Your task to perform on an android device: change the clock display to analog Image 0: 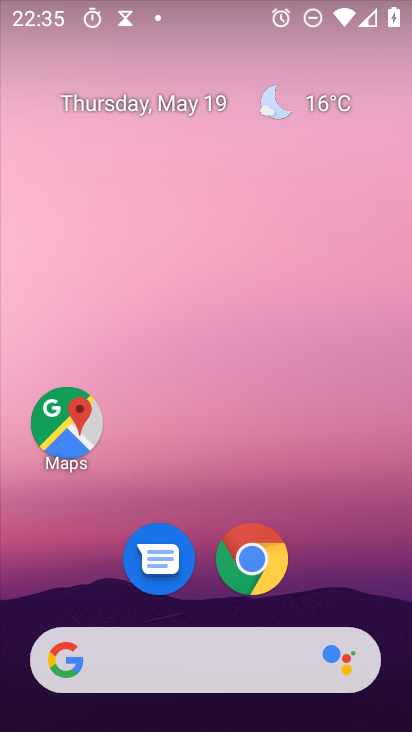
Step 0: drag from (206, 675) to (196, 222)
Your task to perform on an android device: change the clock display to analog Image 1: 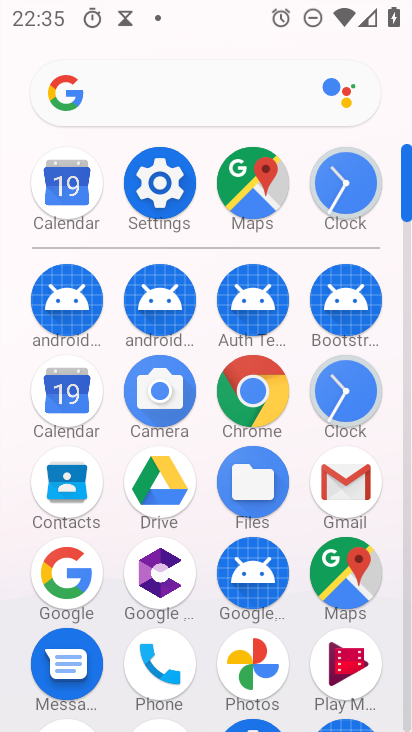
Step 1: click (341, 191)
Your task to perform on an android device: change the clock display to analog Image 2: 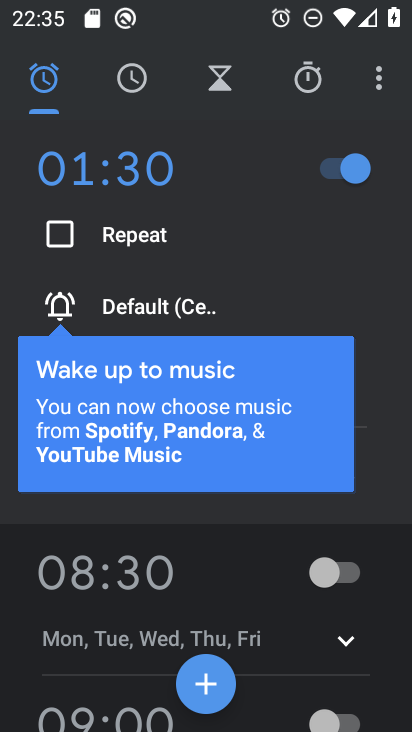
Step 2: click (379, 78)
Your task to perform on an android device: change the clock display to analog Image 3: 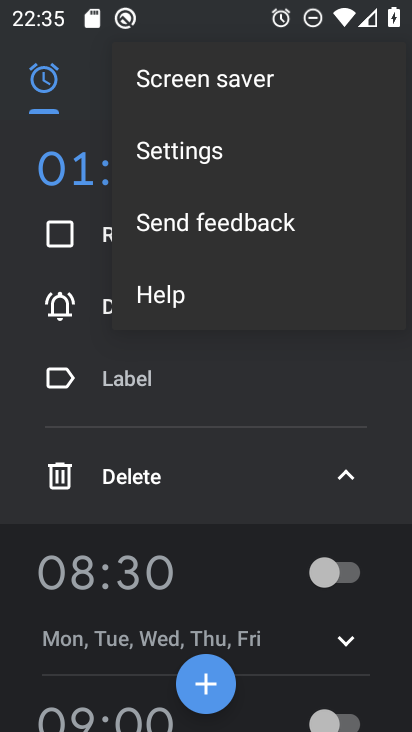
Step 3: click (173, 148)
Your task to perform on an android device: change the clock display to analog Image 4: 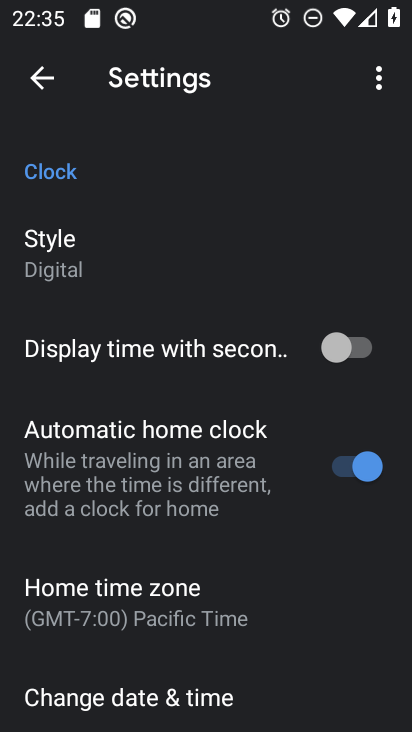
Step 4: click (53, 252)
Your task to perform on an android device: change the clock display to analog Image 5: 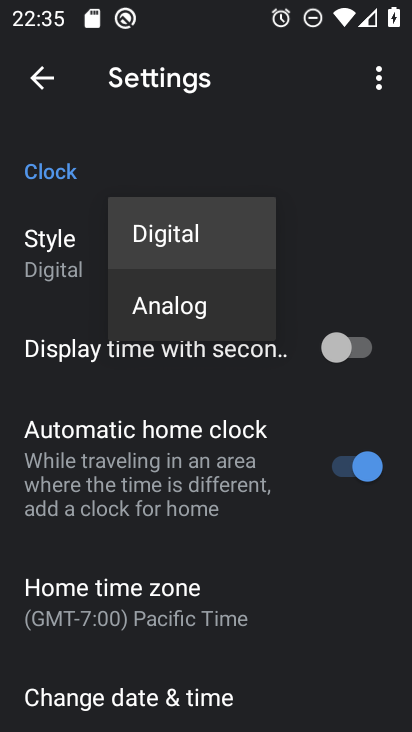
Step 5: click (150, 299)
Your task to perform on an android device: change the clock display to analog Image 6: 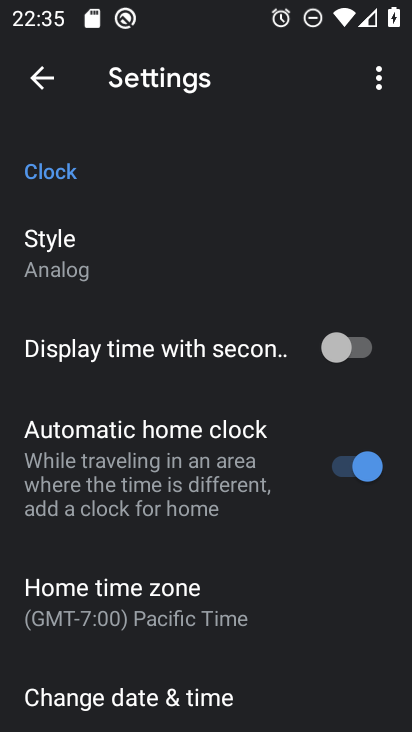
Step 6: task complete